Your task to perform on an android device: Open settings on Google Maps Image 0: 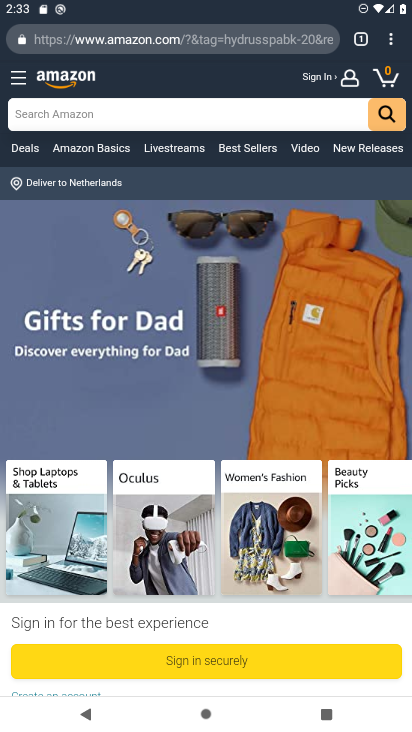
Step 0: press home button
Your task to perform on an android device: Open settings on Google Maps Image 1: 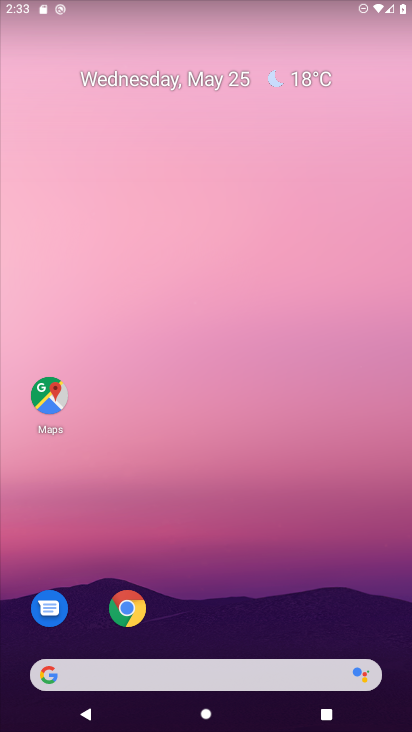
Step 1: click (49, 394)
Your task to perform on an android device: Open settings on Google Maps Image 2: 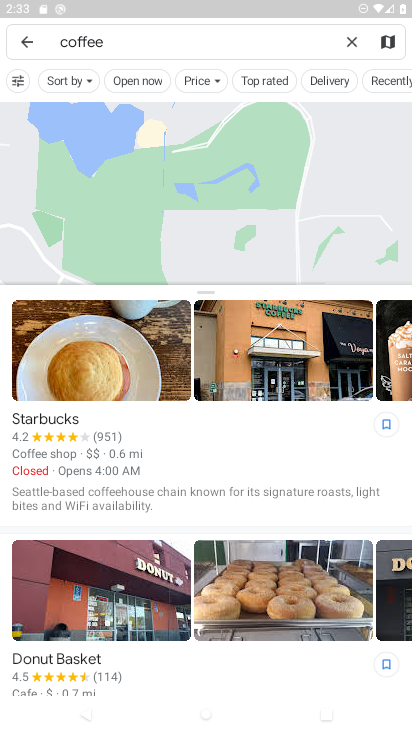
Step 2: click (351, 41)
Your task to perform on an android device: Open settings on Google Maps Image 3: 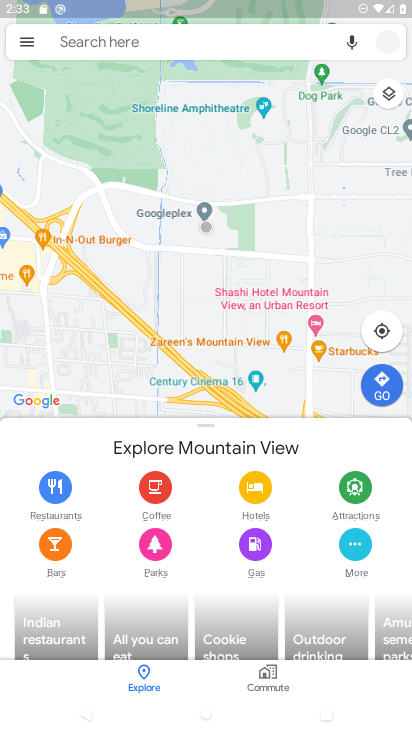
Step 3: click (24, 43)
Your task to perform on an android device: Open settings on Google Maps Image 4: 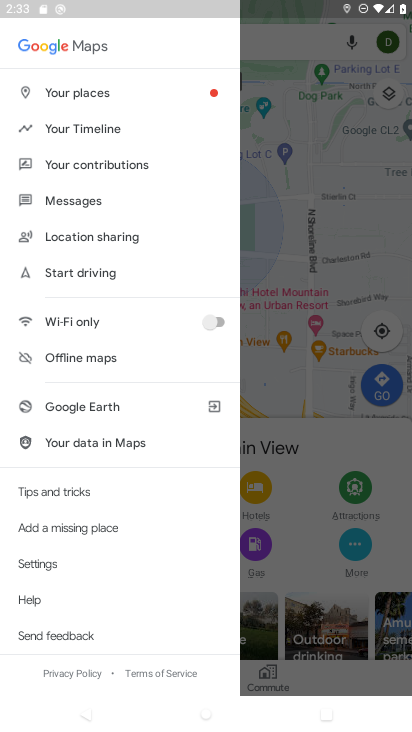
Step 4: click (56, 562)
Your task to perform on an android device: Open settings on Google Maps Image 5: 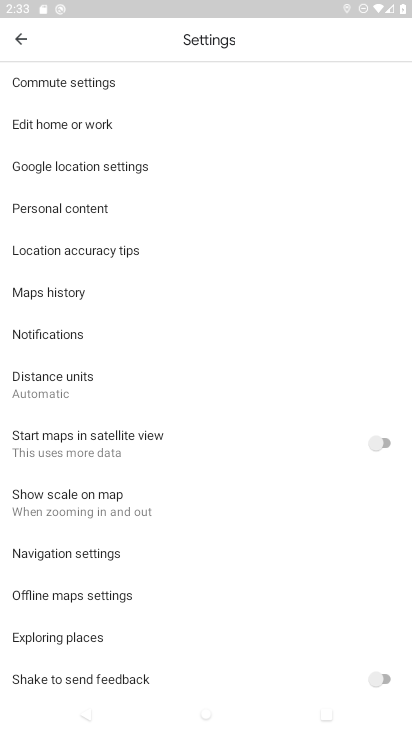
Step 5: task complete